Your task to perform on an android device: turn on wifi Image 0: 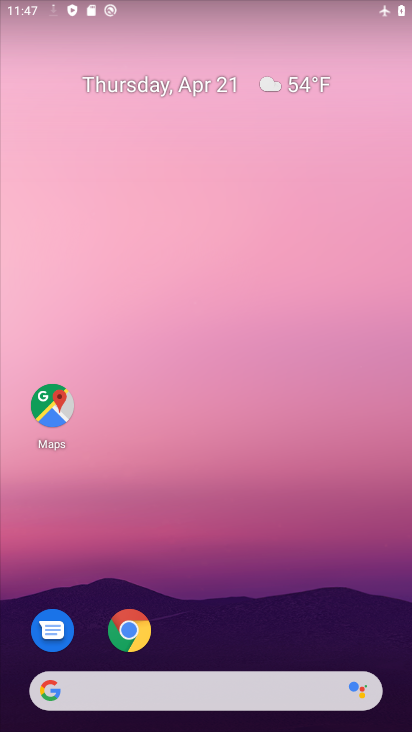
Step 0: drag from (206, 671) to (243, 343)
Your task to perform on an android device: turn on wifi Image 1: 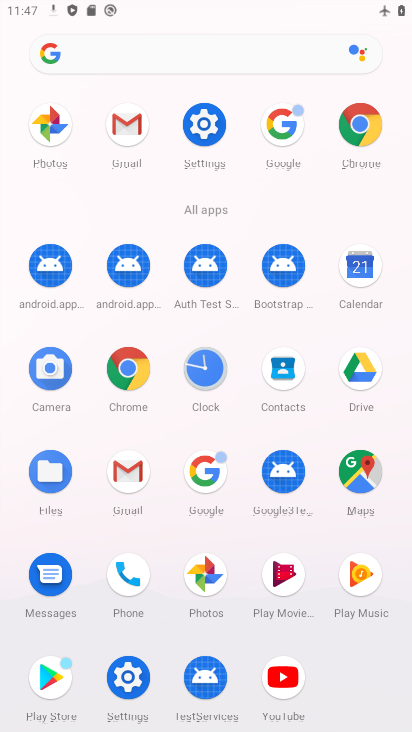
Step 1: click (203, 128)
Your task to perform on an android device: turn on wifi Image 2: 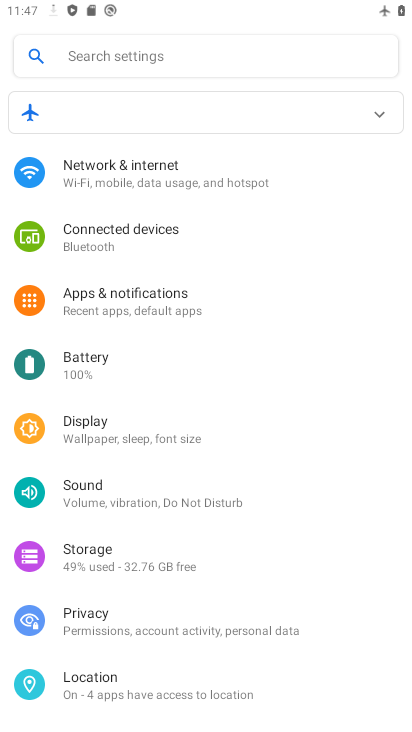
Step 2: click (140, 185)
Your task to perform on an android device: turn on wifi Image 3: 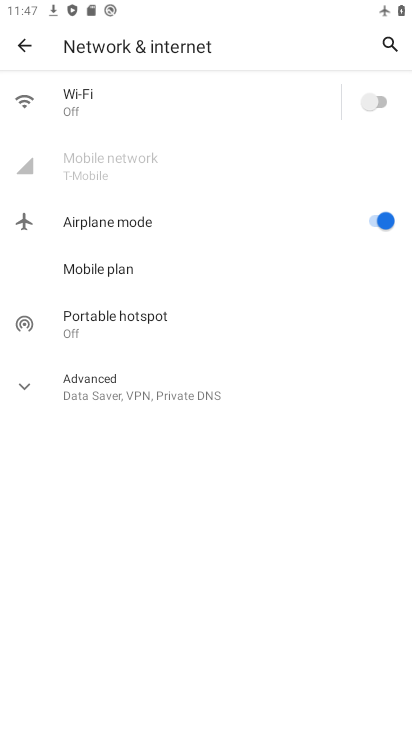
Step 3: click (380, 219)
Your task to perform on an android device: turn on wifi Image 4: 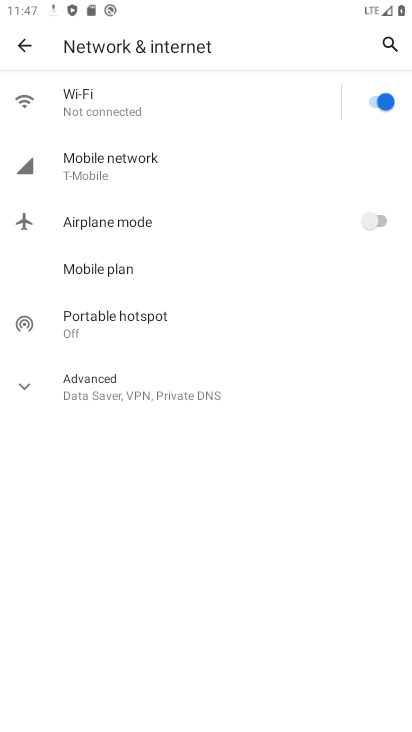
Step 4: click (378, 99)
Your task to perform on an android device: turn on wifi Image 5: 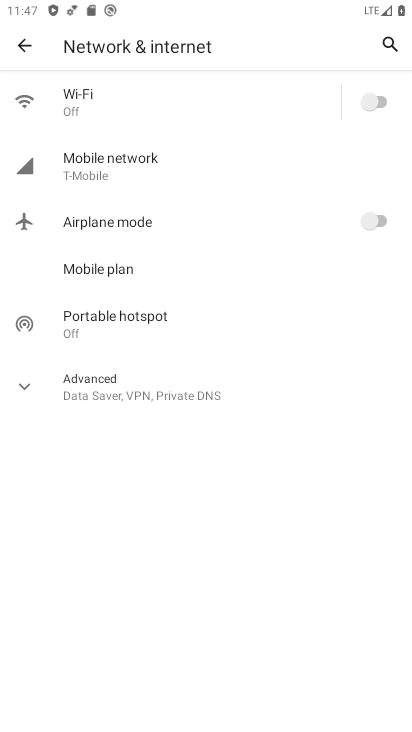
Step 5: click (385, 104)
Your task to perform on an android device: turn on wifi Image 6: 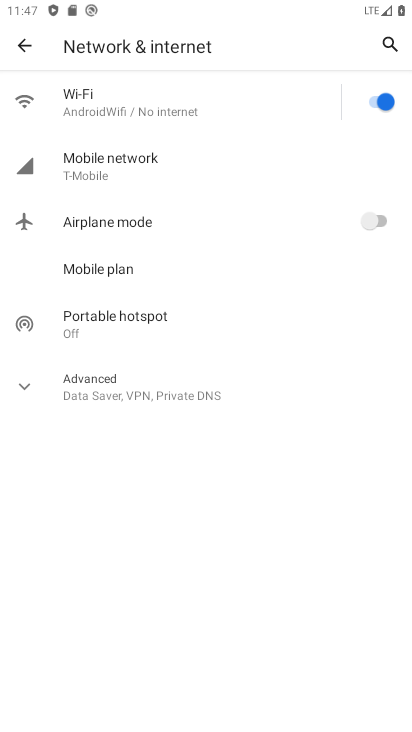
Step 6: task complete